Your task to perform on an android device: Open Maps and search for coffee Image 0: 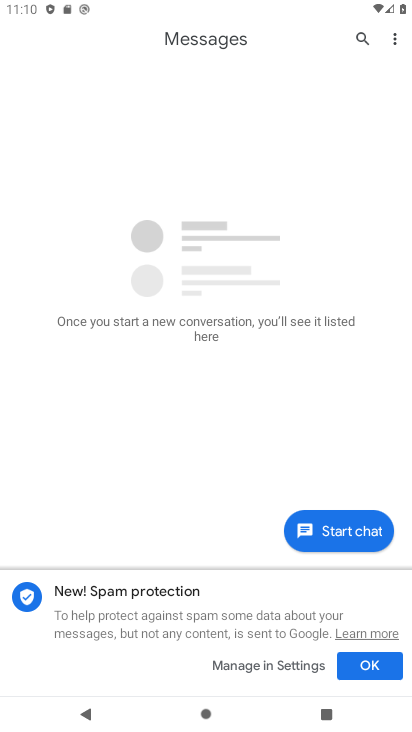
Step 0: press home button
Your task to perform on an android device: Open Maps and search for coffee Image 1: 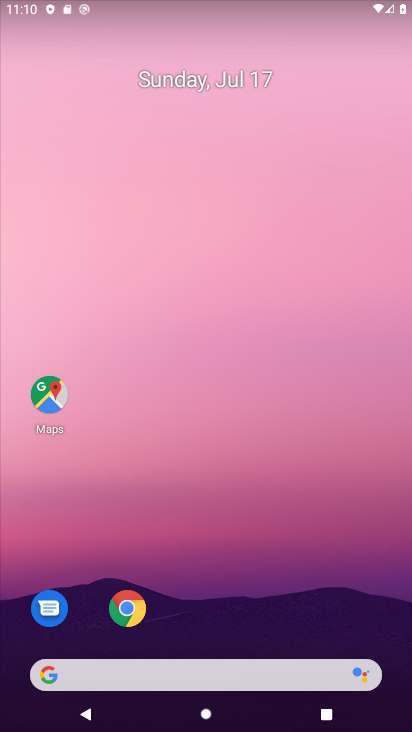
Step 1: click (61, 411)
Your task to perform on an android device: Open Maps and search for coffee Image 2: 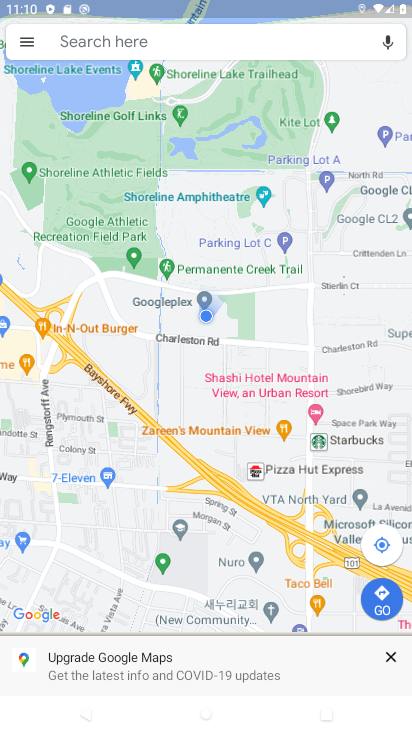
Step 2: click (196, 32)
Your task to perform on an android device: Open Maps and search for coffee Image 3: 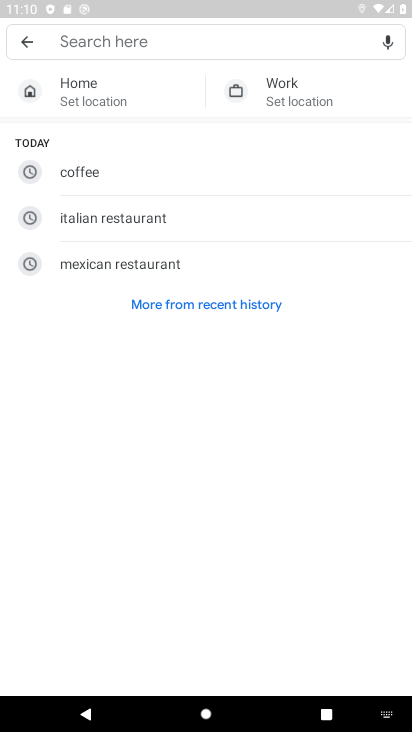
Step 3: type "coffee"
Your task to perform on an android device: Open Maps and search for coffee Image 4: 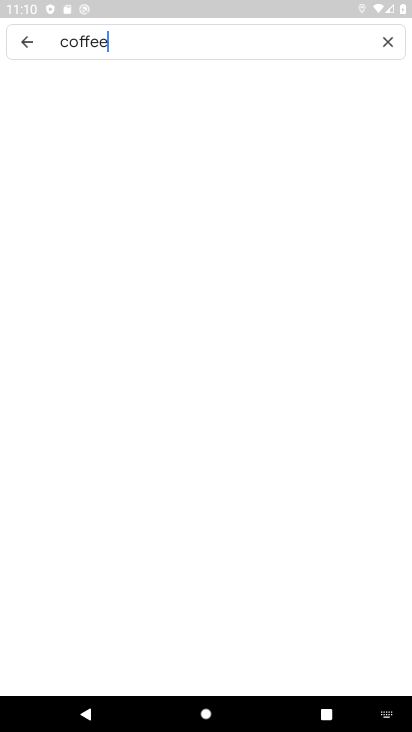
Step 4: type ""
Your task to perform on an android device: Open Maps and search for coffee Image 5: 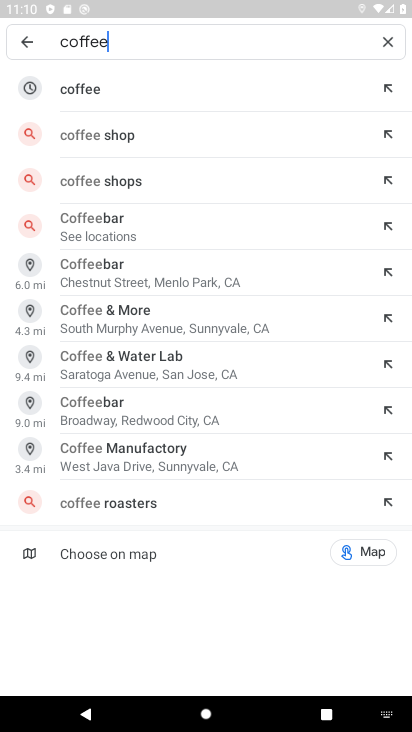
Step 5: click (94, 85)
Your task to perform on an android device: Open Maps and search for coffee Image 6: 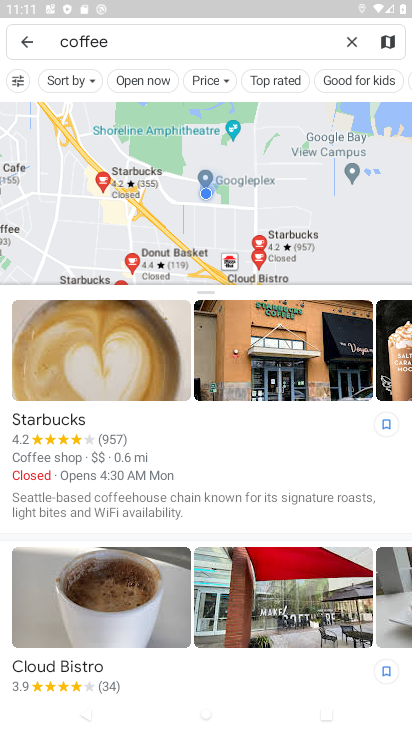
Step 6: task complete